Your task to perform on an android device: Check the weather Image 0: 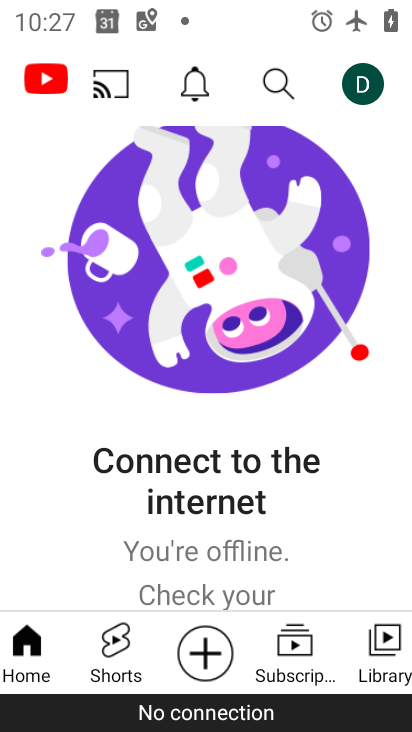
Step 0: press home button
Your task to perform on an android device: Check the weather Image 1: 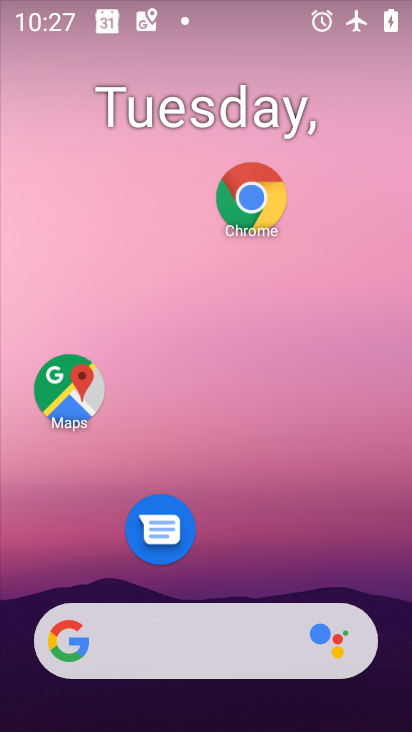
Step 1: drag from (283, 395) to (327, 27)
Your task to perform on an android device: Check the weather Image 2: 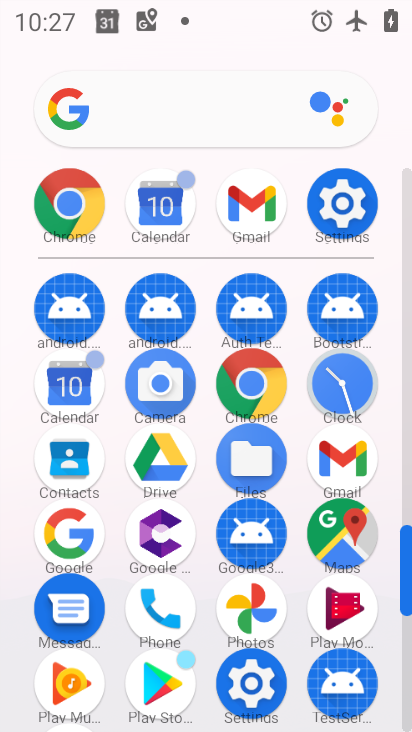
Step 2: click (364, 210)
Your task to perform on an android device: Check the weather Image 3: 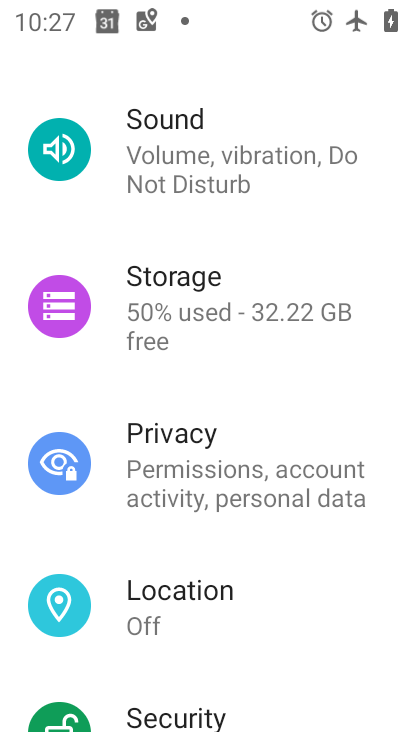
Step 3: drag from (253, 243) to (179, 684)
Your task to perform on an android device: Check the weather Image 4: 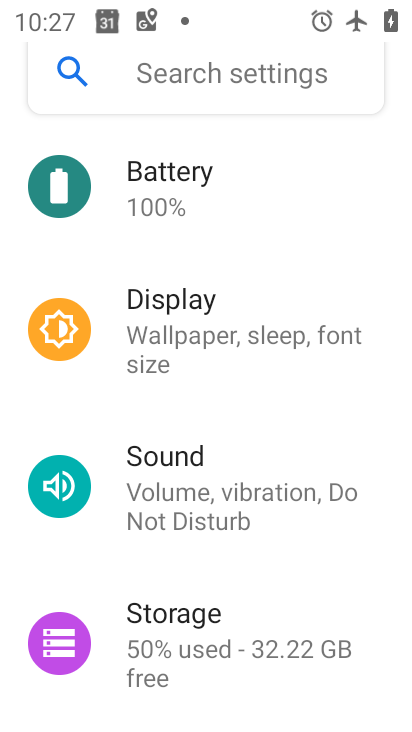
Step 4: drag from (297, 209) to (224, 587)
Your task to perform on an android device: Check the weather Image 5: 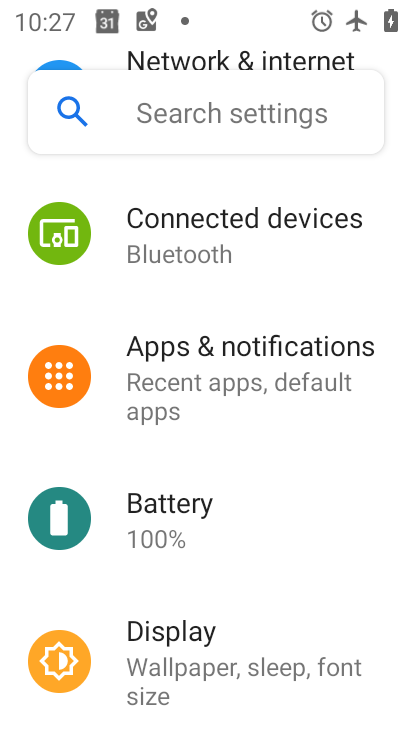
Step 5: click (278, 60)
Your task to perform on an android device: Check the weather Image 6: 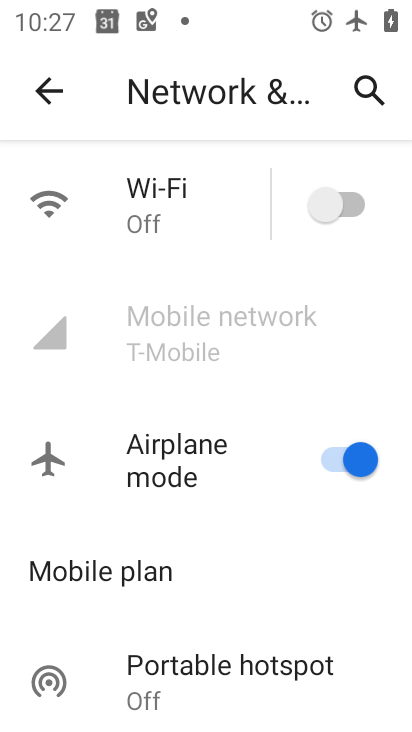
Step 6: click (309, 207)
Your task to perform on an android device: Check the weather Image 7: 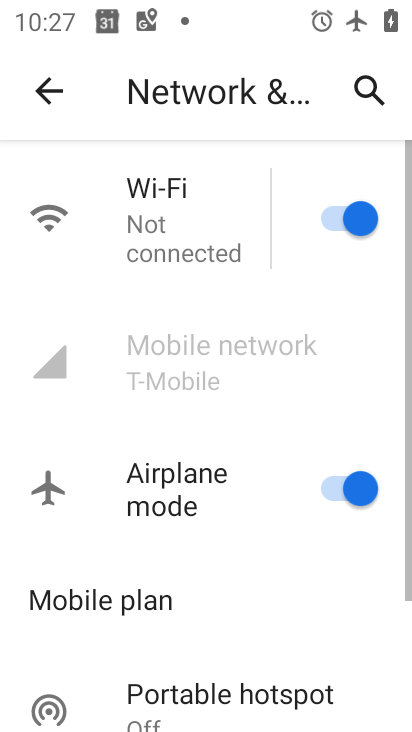
Step 7: click (353, 466)
Your task to perform on an android device: Check the weather Image 8: 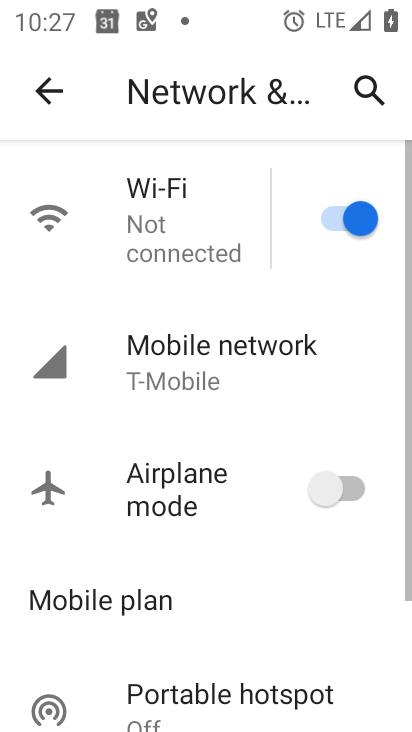
Step 8: press home button
Your task to perform on an android device: Check the weather Image 9: 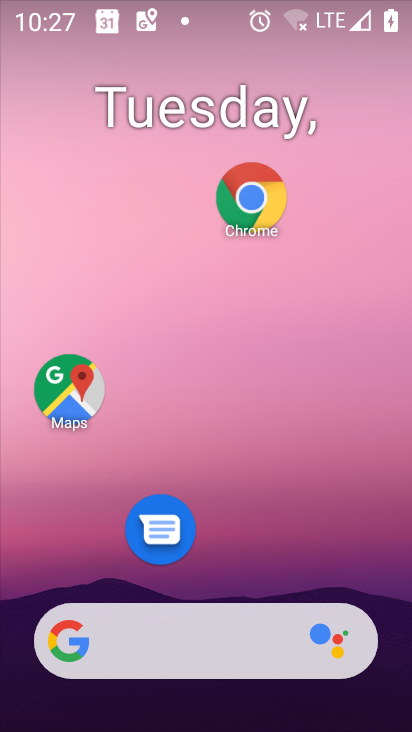
Step 9: click (305, 593)
Your task to perform on an android device: Check the weather Image 10: 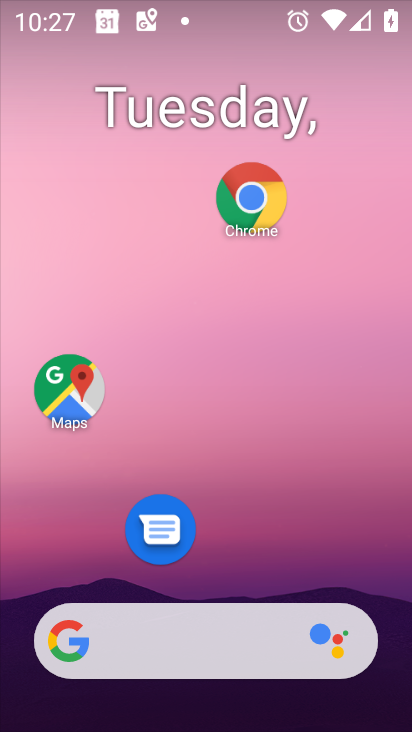
Step 10: click (234, 643)
Your task to perform on an android device: Check the weather Image 11: 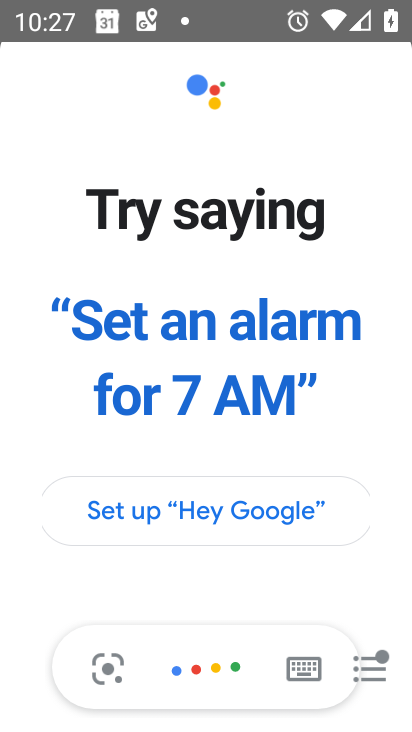
Step 11: press back button
Your task to perform on an android device: Check the weather Image 12: 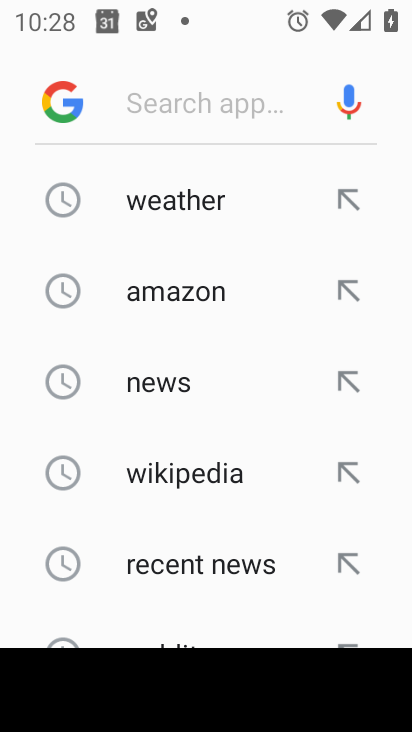
Step 12: click (152, 191)
Your task to perform on an android device: Check the weather Image 13: 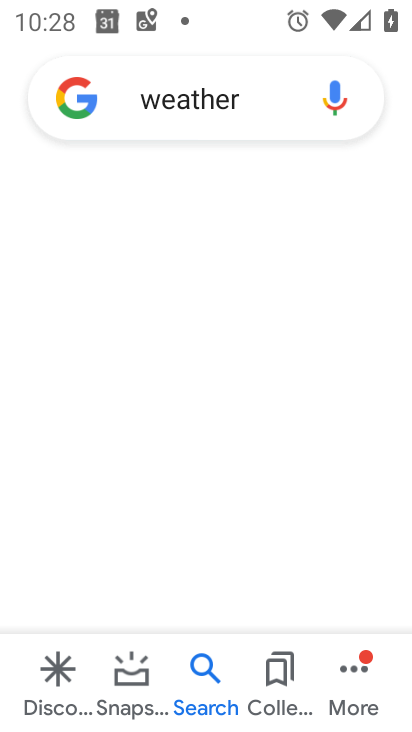
Step 13: task complete